Your task to perform on an android device: Open CNN.com Image 0: 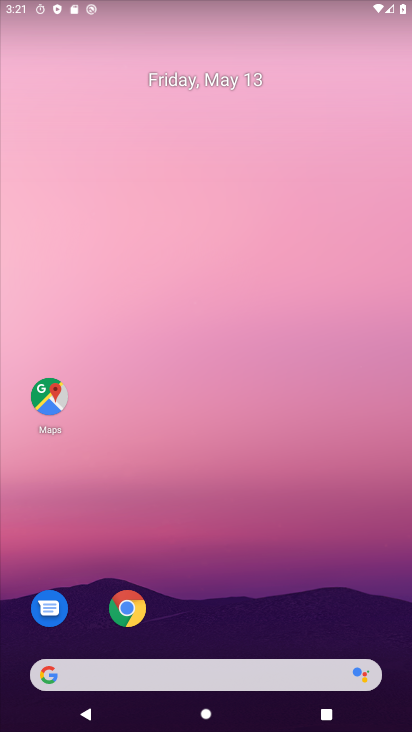
Step 0: click (120, 621)
Your task to perform on an android device: Open CNN.com Image 1: 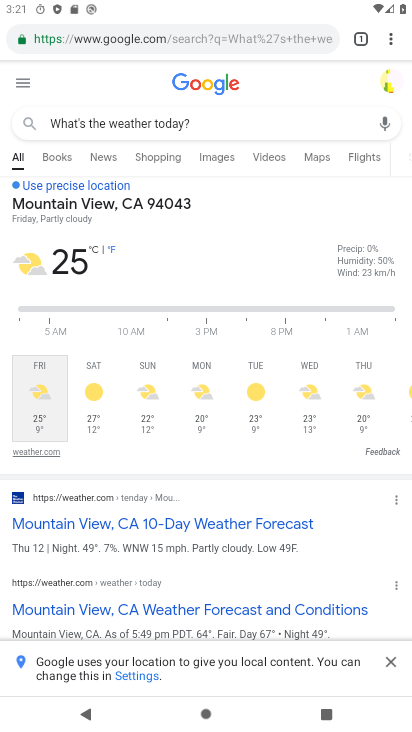
Step 1: click (269, 48)
Your task to perform on an android device: Open CNN.com Image 2: 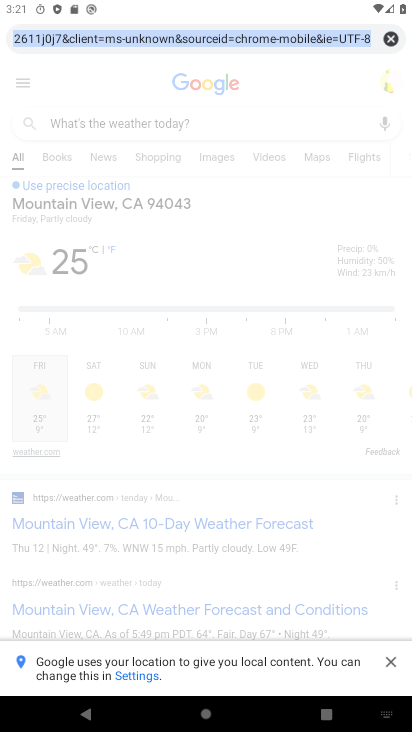
Step 2: click (392, 50)
Your task to perform on an android device: Open CNN.com Image 3: 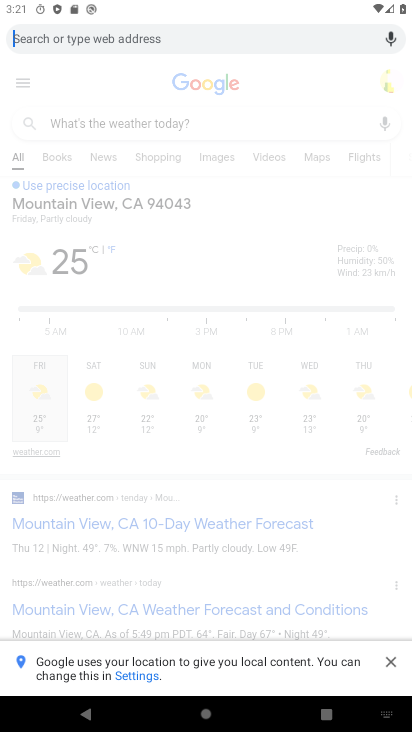
Step 3: click (341, 37)
Your task to perform on an android device: Open CNN.com Image 4: 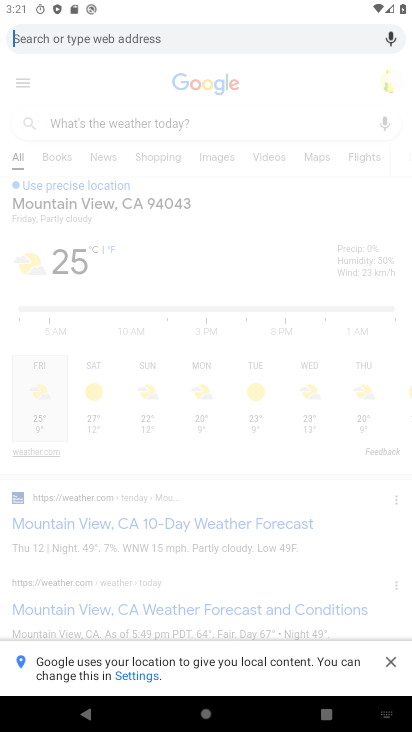
Step 4: type " CNN.com"
Your task to perform on an android device: Open CNN.com Image 5: 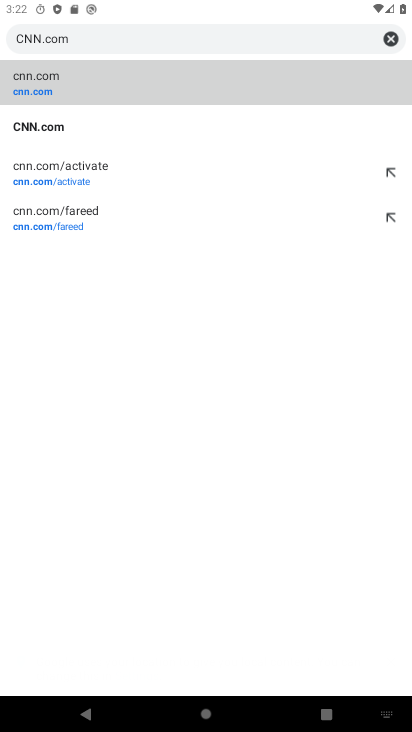
Step 5: click (127, 74)
Your task to perform on an android device: Open CNN.com Image 6: 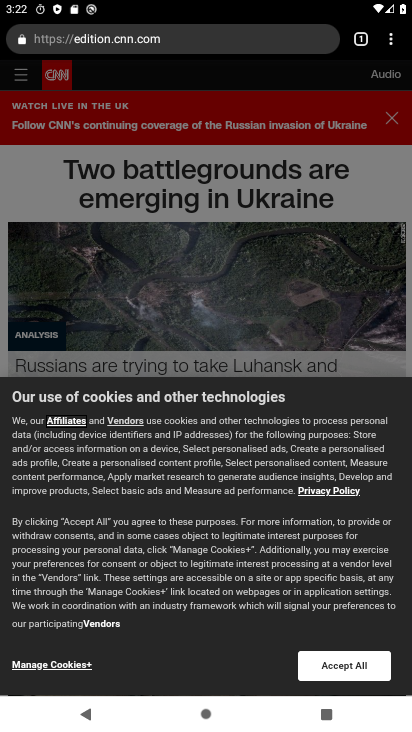
Step 6: task complete